Your task to perform on an android device: change your default location settings in chrome Image 0: 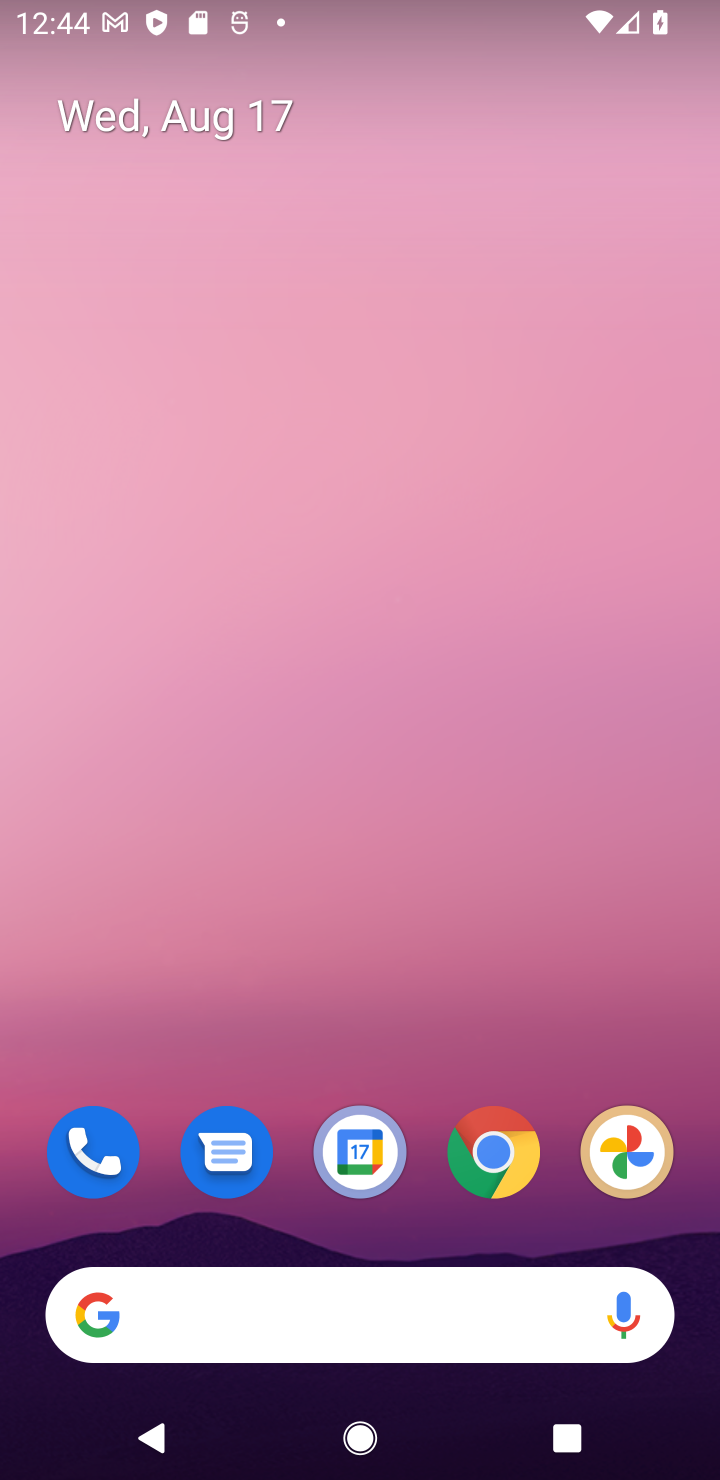
Step 0: drag from (595, 1220) to (276, 66)
Your task to perform on an android device: change your default location settings in chrome Image 1: 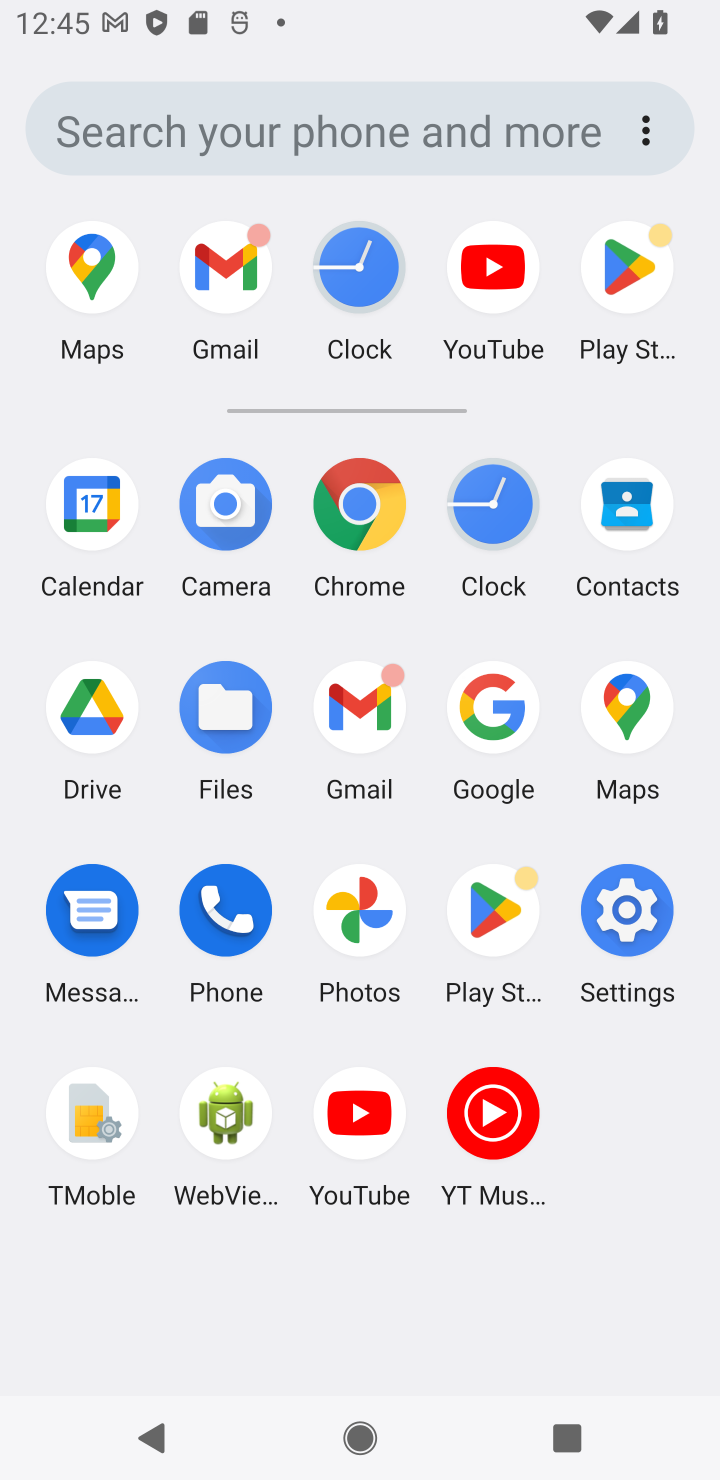
Step 1: click (347, 509)
Your task to perform on an android device: change your default location settings in chrome Image 2: 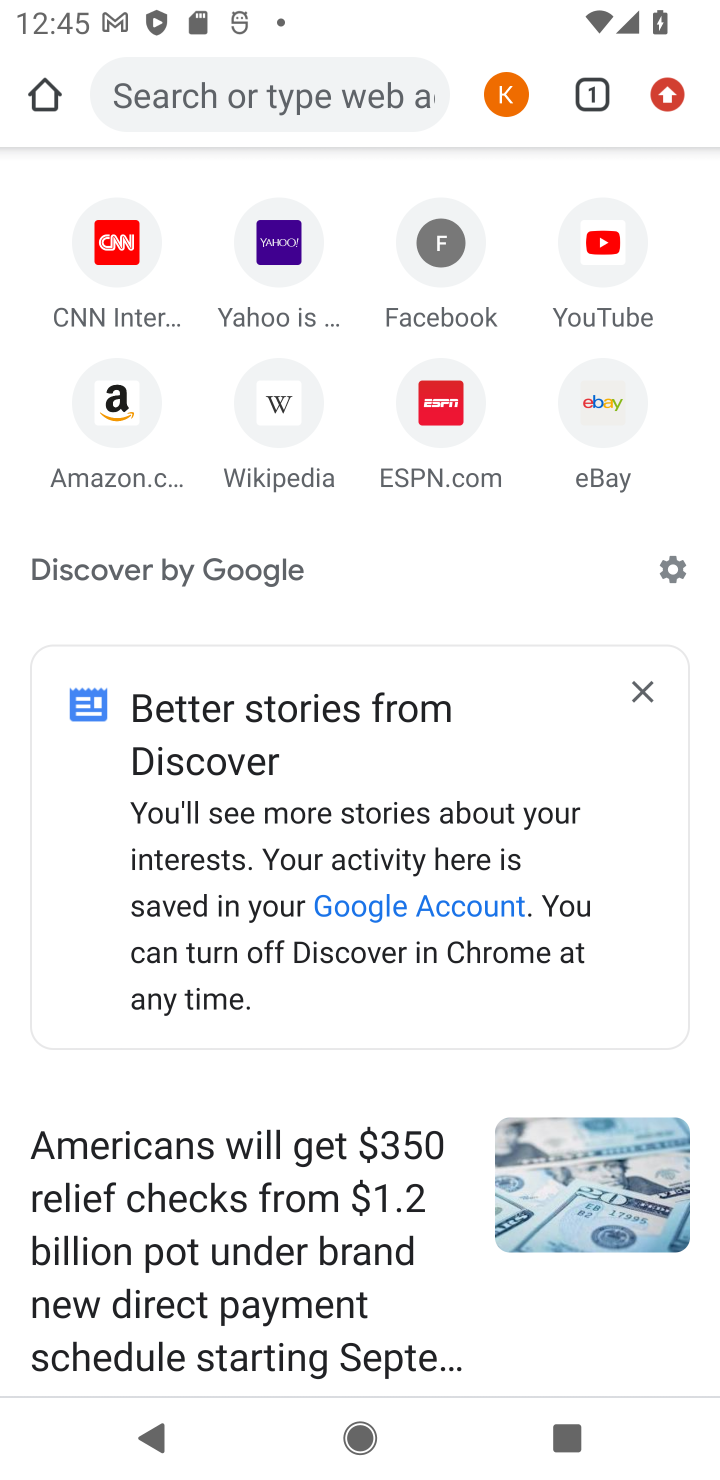
Step 2: click (663, 85)
Your task to perform on an android device: change your default location settings in chrome Image 3: 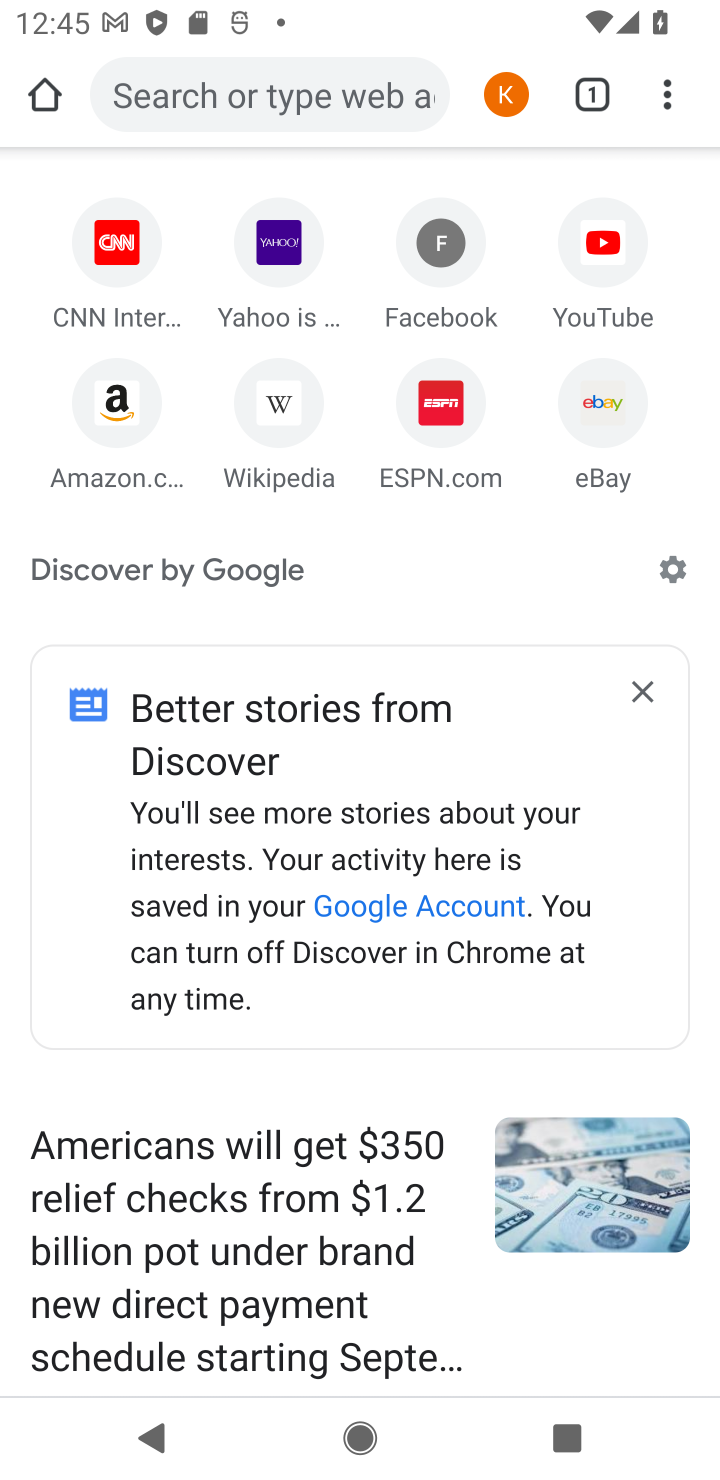
Step 3: click (663, 85)
Your task to perform on an android device: change your default location settings in chrome Image 4: 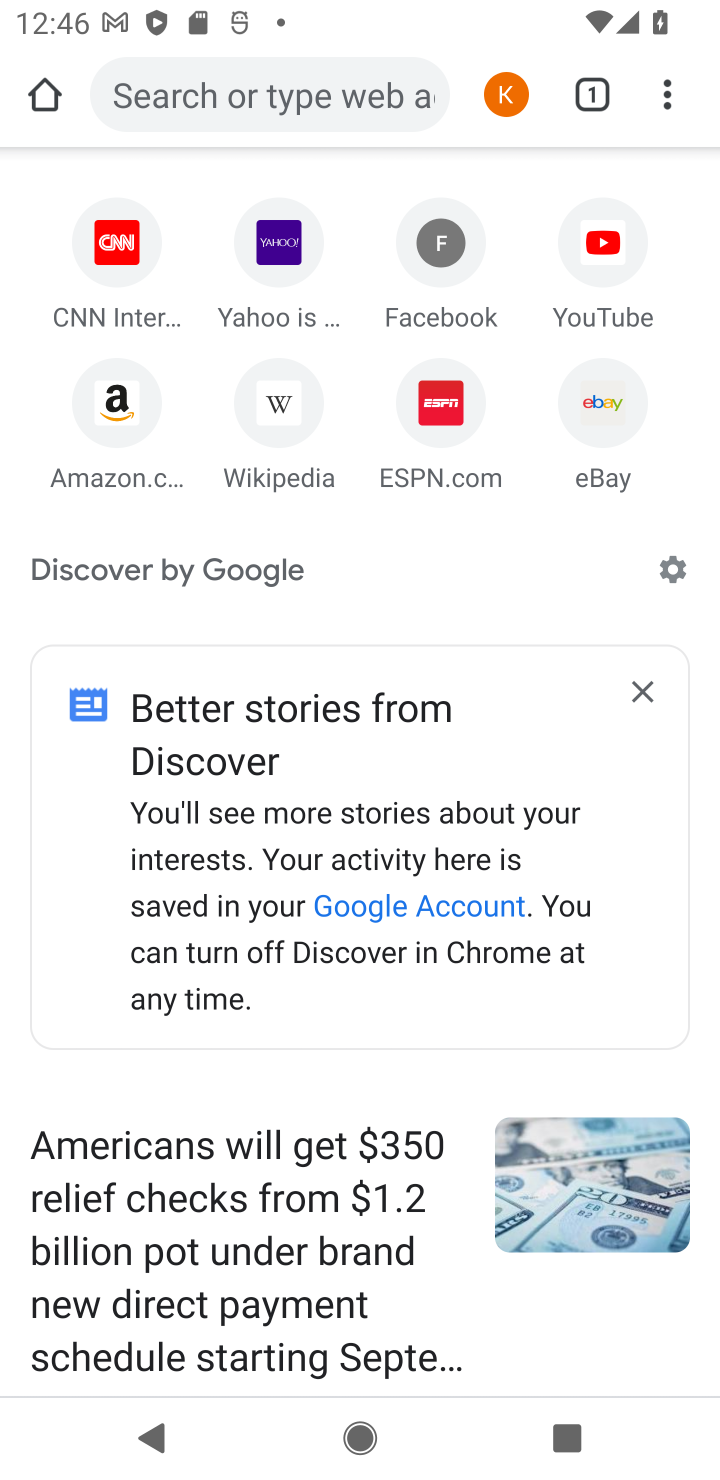
Step 4: click (680, 91)
Your task to perform on an android device: change your default location settings in chrome Image 5: 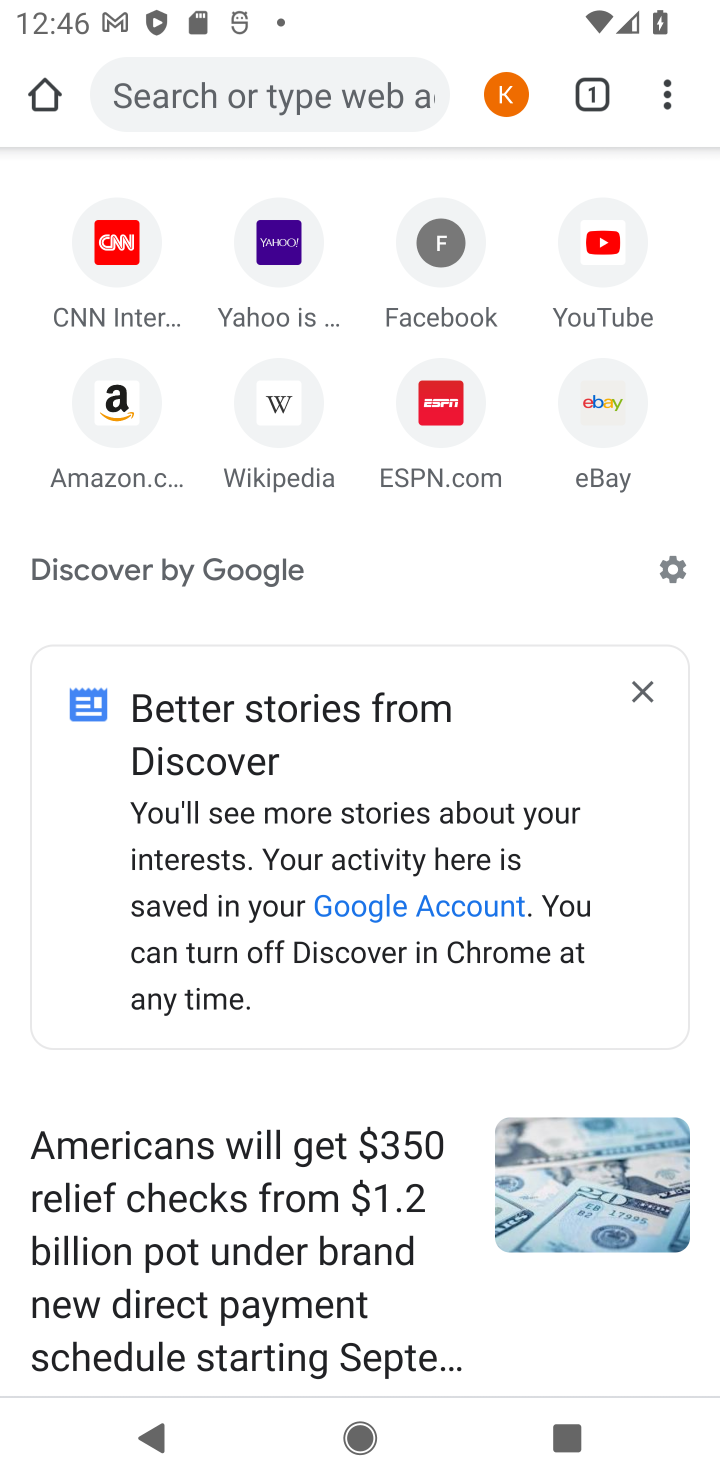
Step 5: click (668, 80)
Your task to perform on an android device: change your default location settings in chrome Image 6: 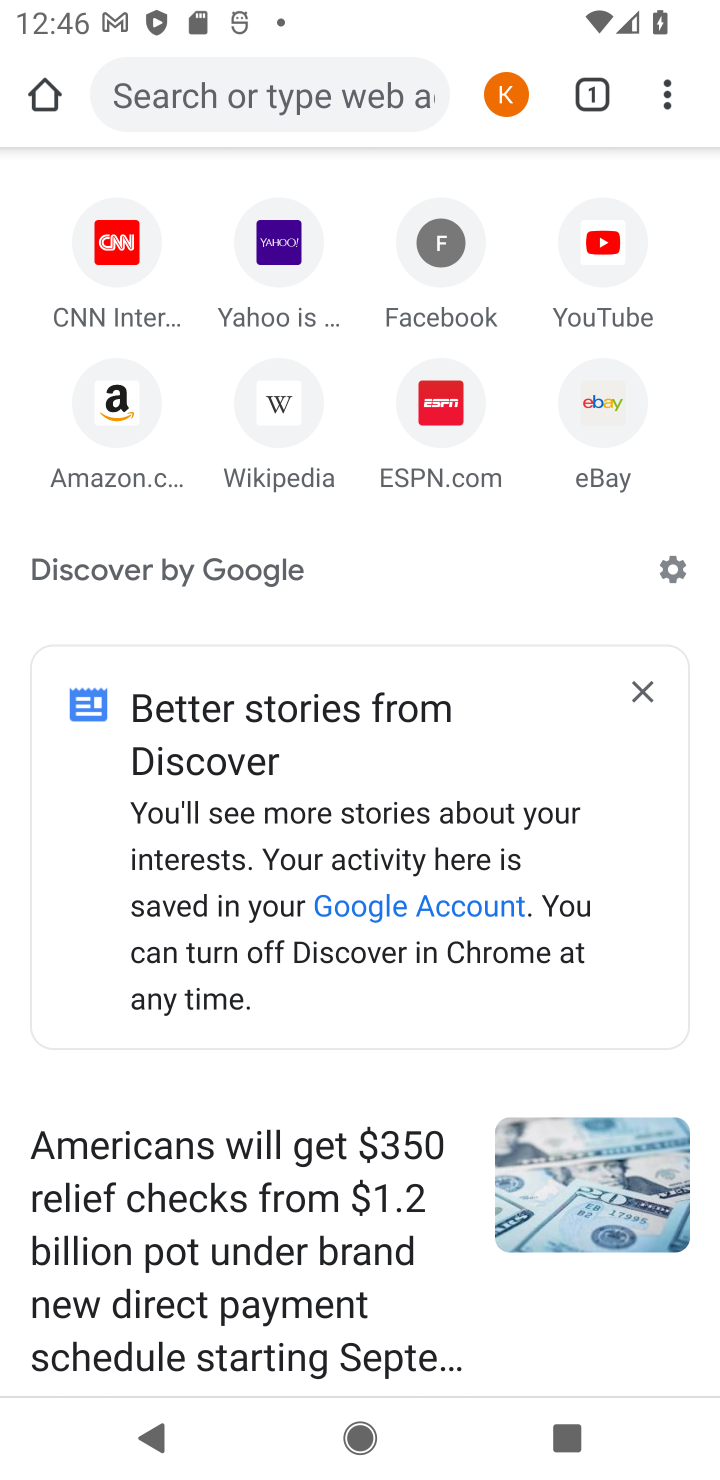
Step 6: click (658, 96)
Your task to perform on an android device: change your default location settings in chrome Image 7: 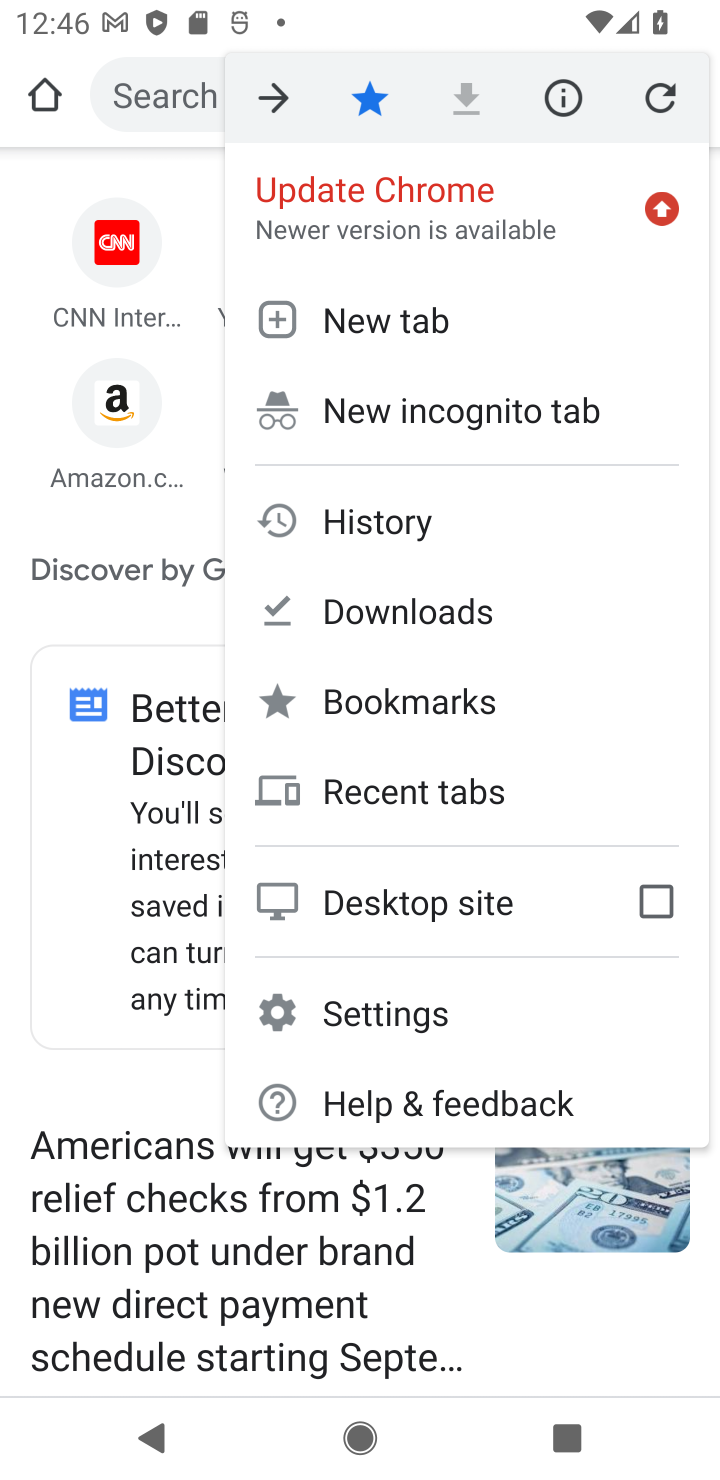
Step 7: click (359, 995)
Your task to perform on an android device: change your default location settings in chrome Image 8: 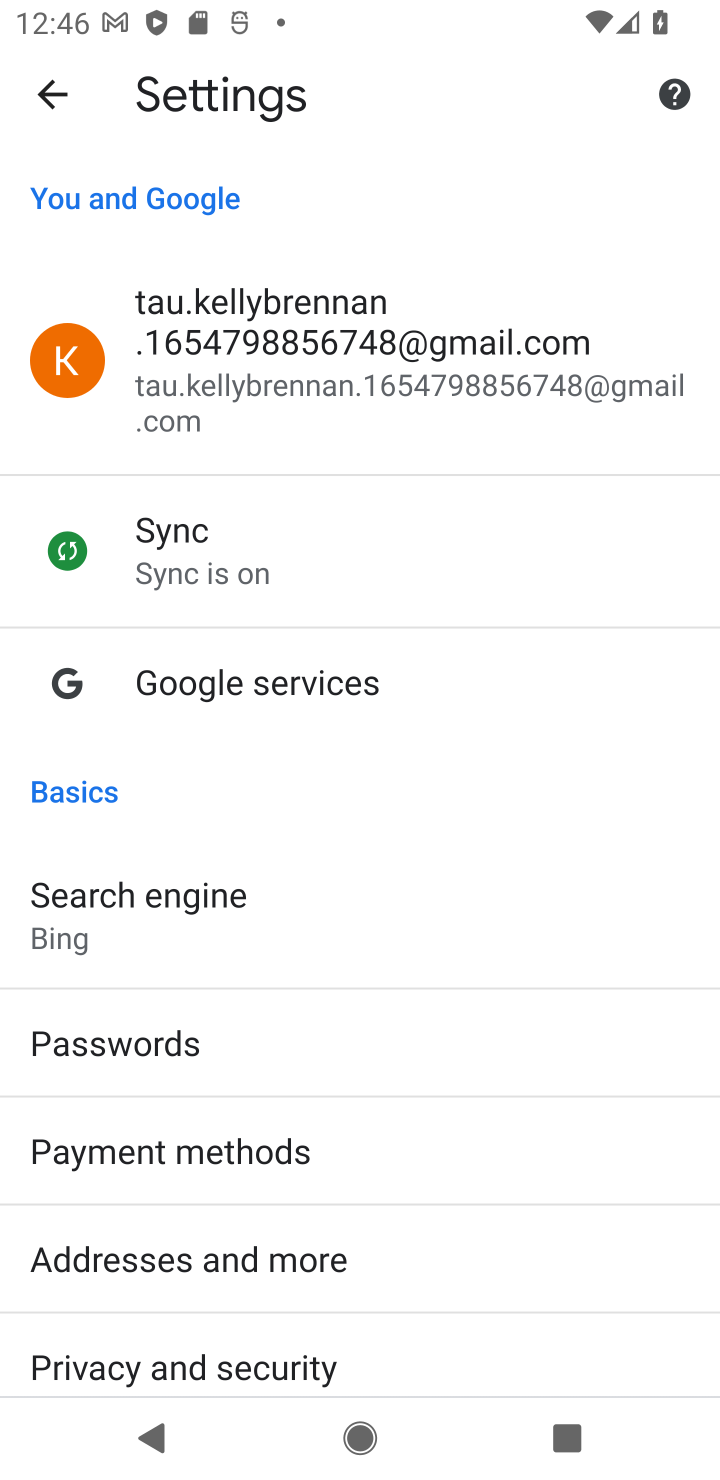
Step 8: click (134, 912)
Your task to perform on an android device: change your default location settings in chrome Image 9: 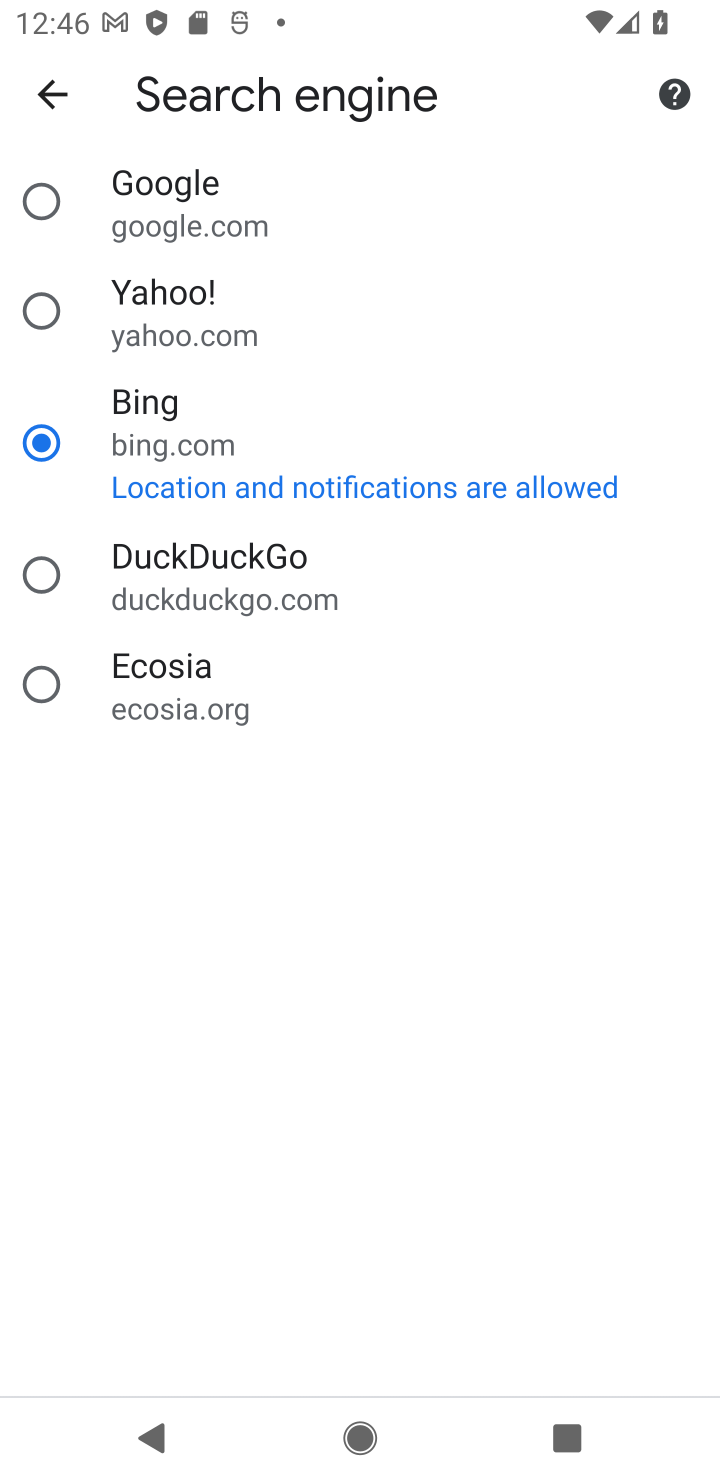
Step 9: click (221, 220)
Your task to perform on an android device: change your default location settings in chrome Image 10: 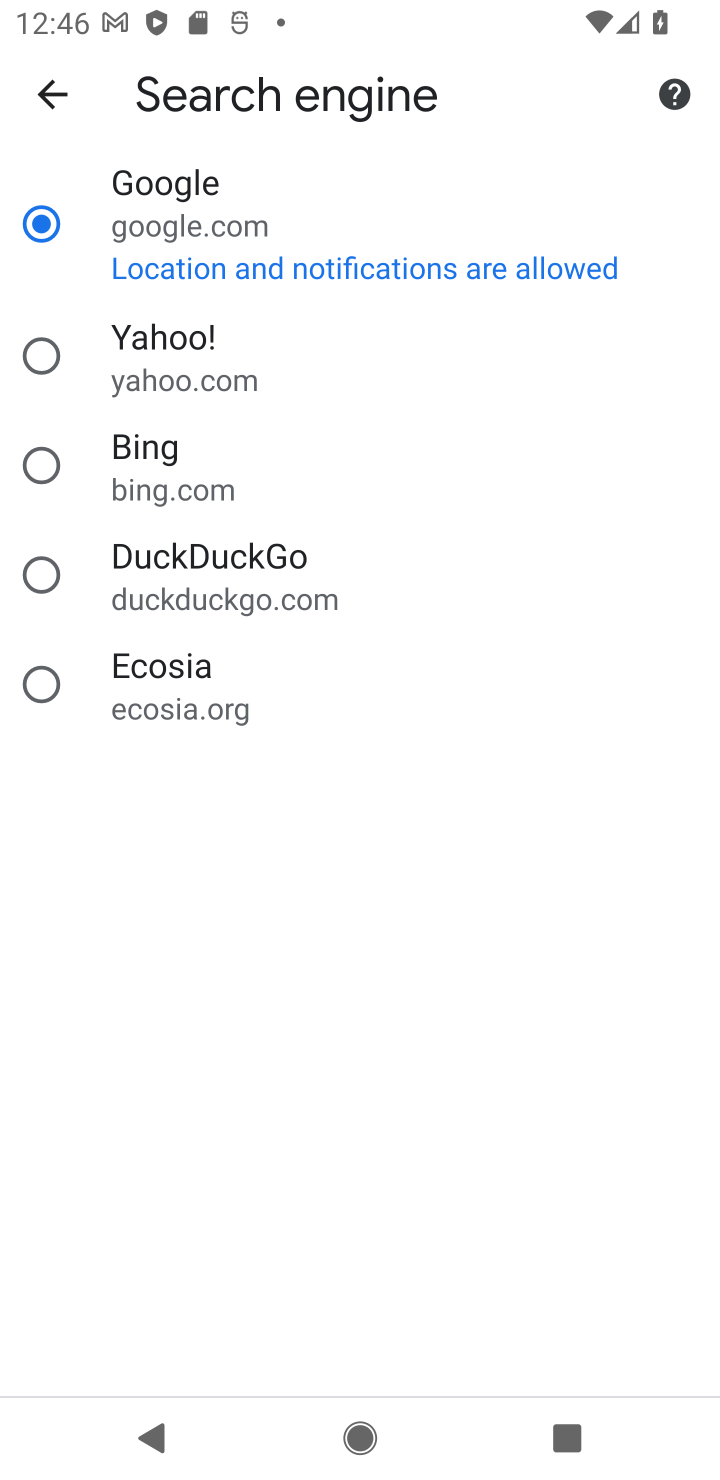
Step 10: task complete